Your task to perform on an android device: turn on data saver in the chrome app Image 0: 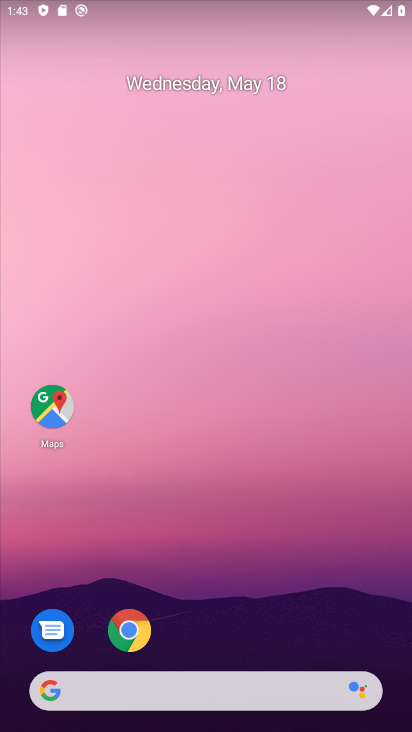
Step 0: click (137, 629)
Your task to perform on an android device: turn on data saver in the chrome app Image 1: 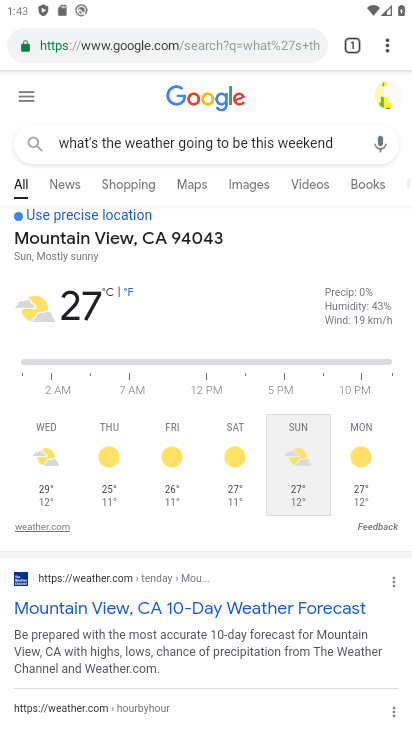
Step 1: click (388, 39)
Your task to perform on an android device: turn on data saver in the chrome app Image 2: 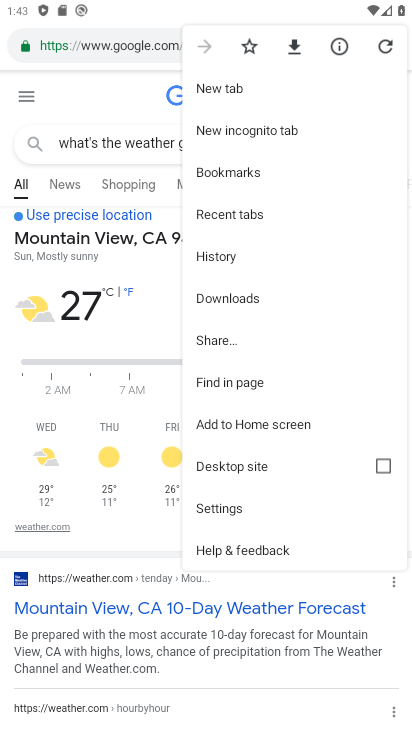
Step 2: click (218, 508)
Your task to perform on an android device: turn on data saver in the chrome app Image 3: 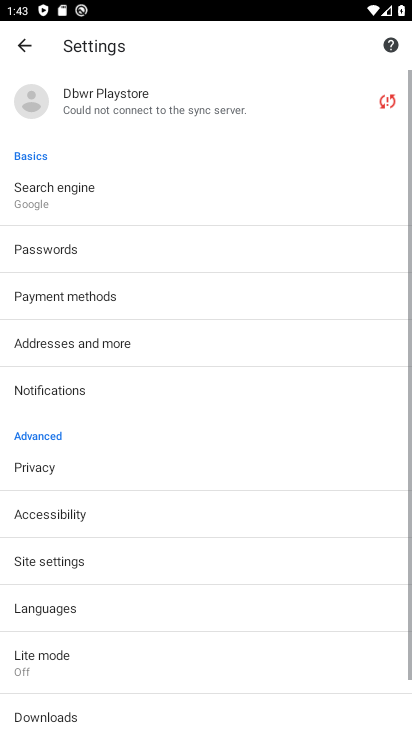
Step 3: click (53, 658)
Your task to perform on an android device: turn on data saver in the chrome app Image 4: 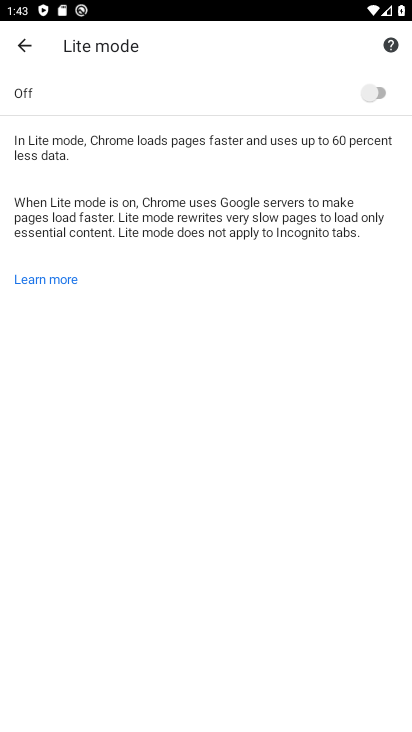
Step 4: click (383, 92)
Your task to perform on an android device: turn on data saver in the chrome app Image 5: 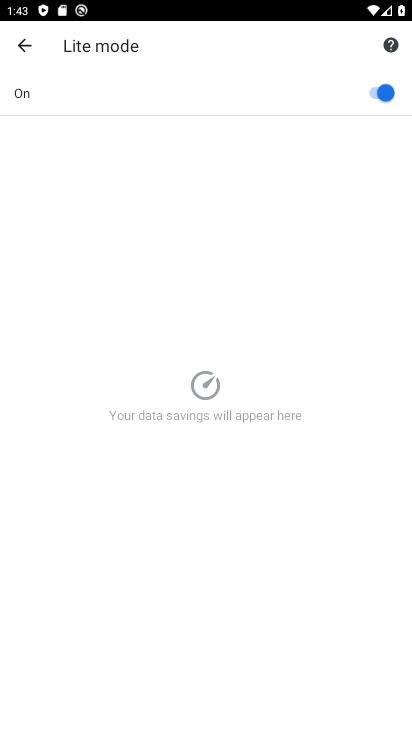
Step 5: task complete